Your task to perform on an android device: set the stopwatch Image 0: 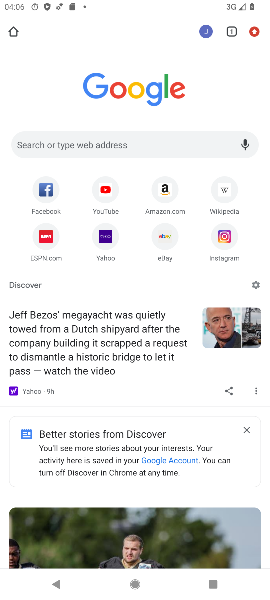
Step 0: press home button
Your task to perform on an android device: set the stopwatch Image 1: 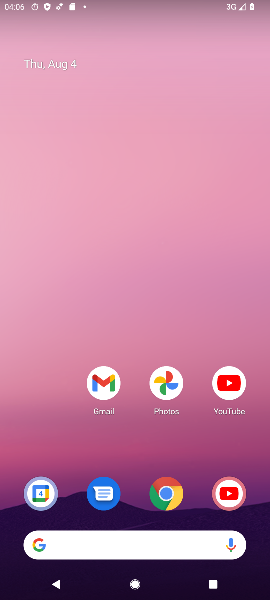
Step 1: drag from (36, 562) to (164, 63)
Your task to perform on an android device: set the stopwatch Image 2: 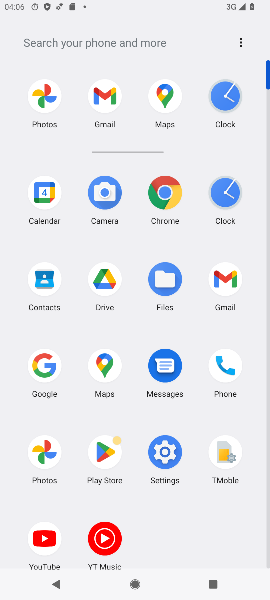
Step 2: click (230, 190)
Your task to perform on an android device: set the stopwatch Image 3: 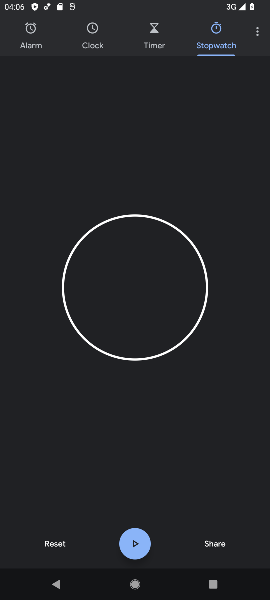
Step 3: click (140, 296)
Your task to perform on an android device: set the stopwatch Image 4: 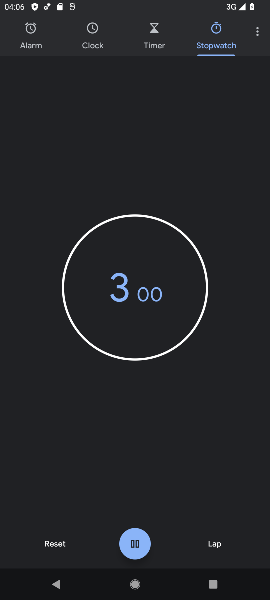
Step 4: click (142, 547)
Your task to perform on an android device: set the stopwatch Image 5: 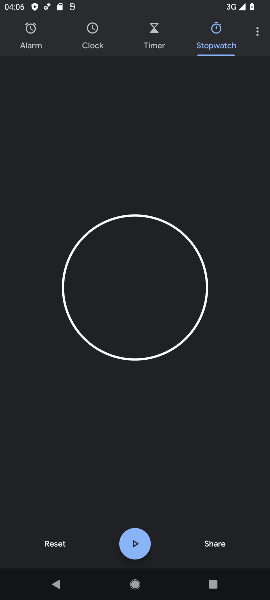
Step 5: task complete